Your task to perform on an android device: Go to privacy settings Image 0: 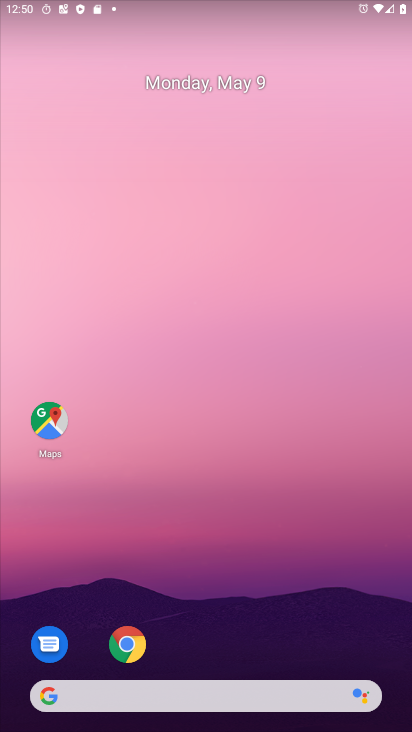
Step 0: drag from (232, 465) to (72, 16)
Your task to perform on an android device: Go to privacy settings Image 1: 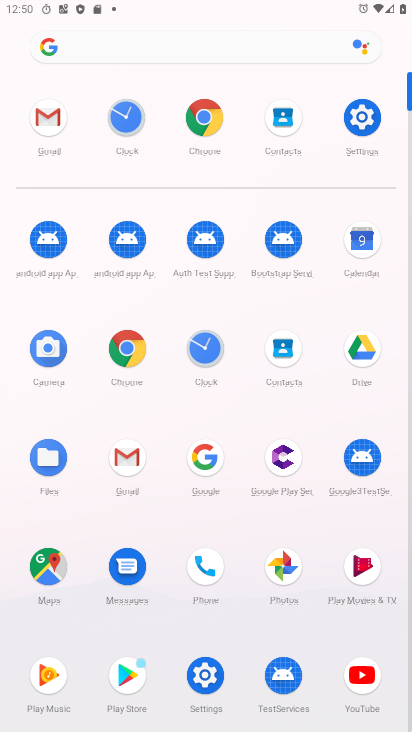
Step 1: click (368, 110)
Your task to perform on an android device: Go to privacy settings Image 2: 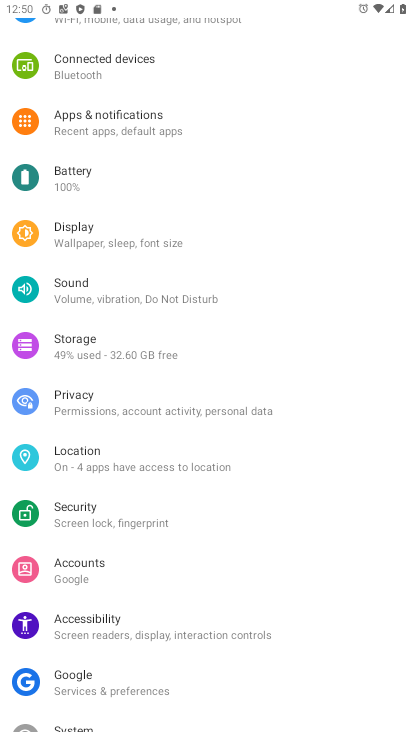
Step 2: click (54, 402)
Your task to perform on an android device: Go to privacy settings Image 3: 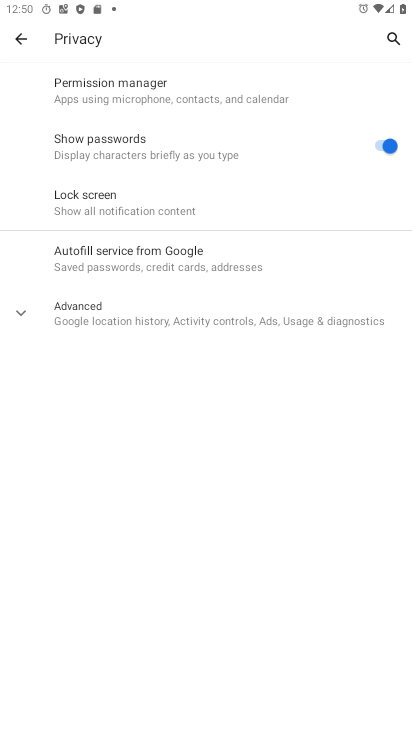
Step 3: task complete